Your task to perform on an android device: open app "Firefox Browser" Image 0: 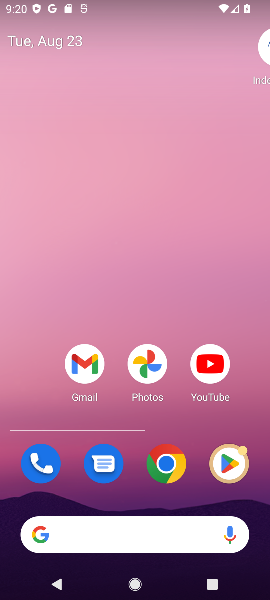
Step 0: press home button
Your task to perform on an android device: open app "Firefox Browser" Image 1: 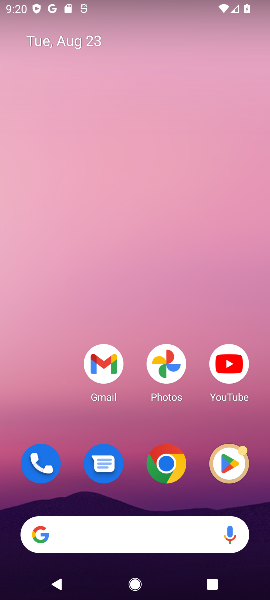
Step 1: click (226, 464)
Your task to perform on an android device: open app "Firefox Browser" Image 2: 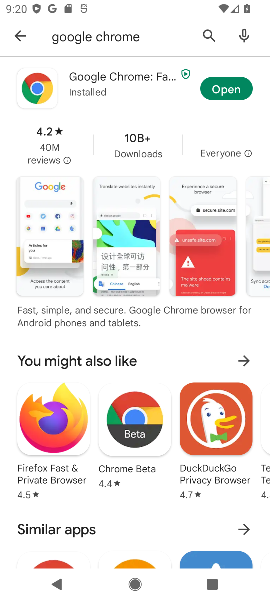
Step 2: click (201, 33)
Your task to perform on an android device: open app "Firefox Browser" Image 3: 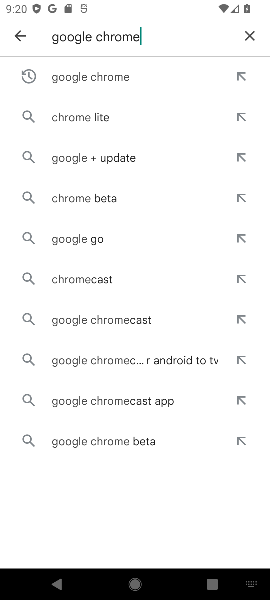
Step 3: click (252, 36)
Your task to perform on an android device: open app "Firefox Browser" Image 4: 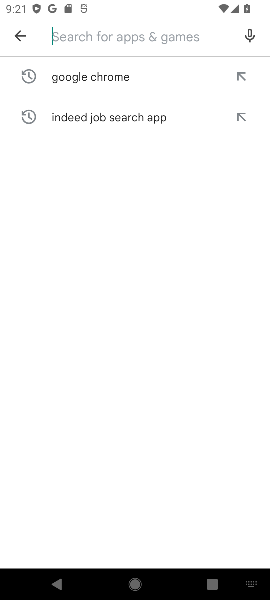
Step 4: type "Firefox Browser"
Your task to perform on an android device: open app "Firefox Browser" Image 5: 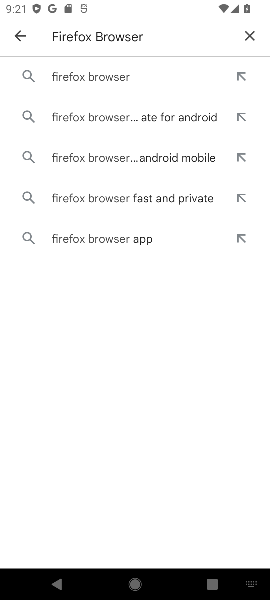
Step 5: click (102, 72)
Your task to perform on an android device: open app "Firefox Browser" Image 6: 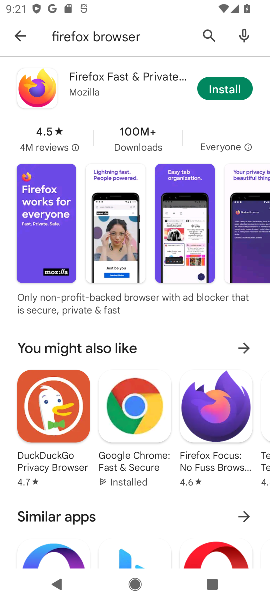
Step 6: task complete